Your task to perform on an android device: turn on translation in the chrome app Image 0: 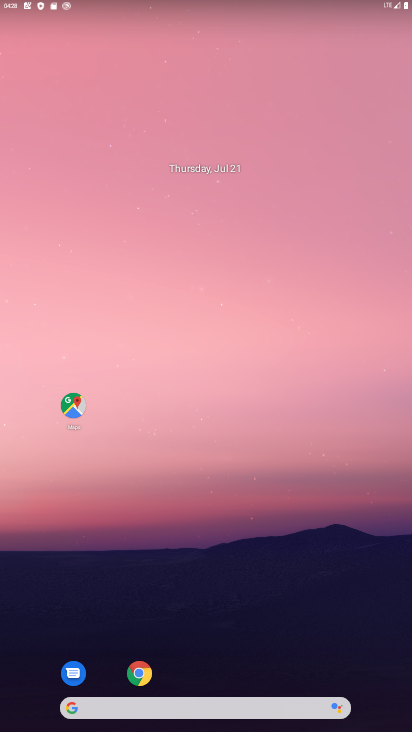
Step 0: drag from (393, 596) to (155, 50)
Your task to perform on an android device: turn on translation in the chrome app Image 1: 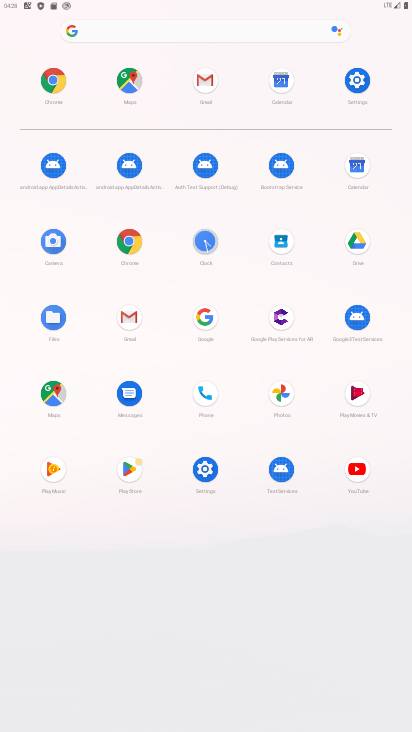
Step 1: click (124, 240)
Your task to perform on an android device: turn on translation in the chrome app Image 2: 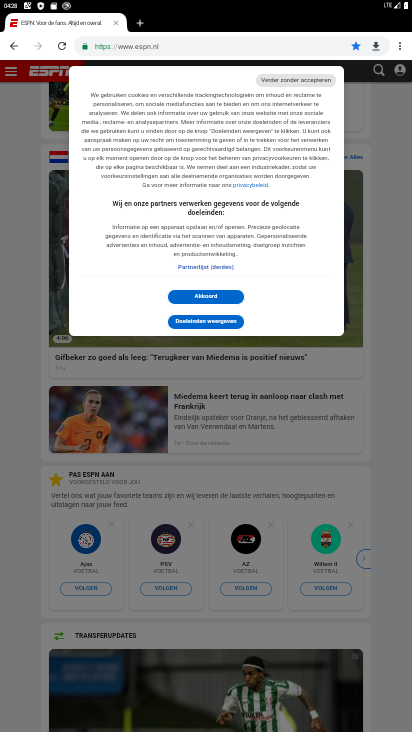
Step 2: drag from (402, 42) to (293, 304)
Your task to perform on an android device: turn on translation in the chrome app Image 3: 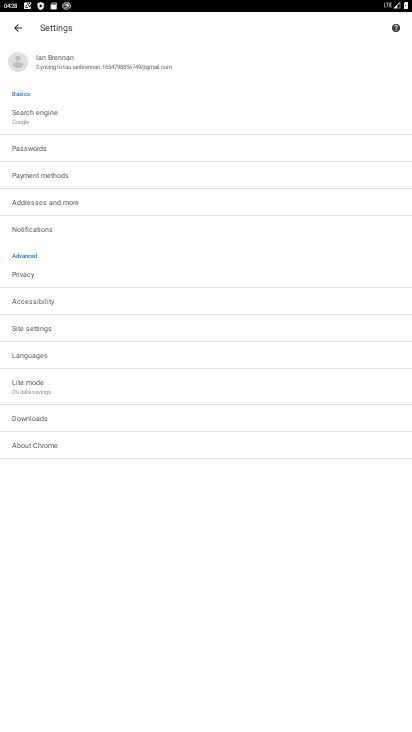
Step 3: click (30, 361)
Your task to perform on an android device: turn on translation in the chrome app Image 4: 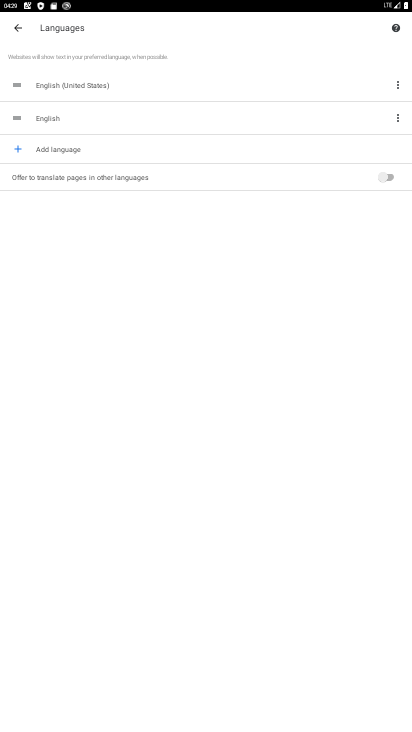
Step 4: click (376, 187)
Your task to perform on an android device: turn on translation in the chrome app Image 5: 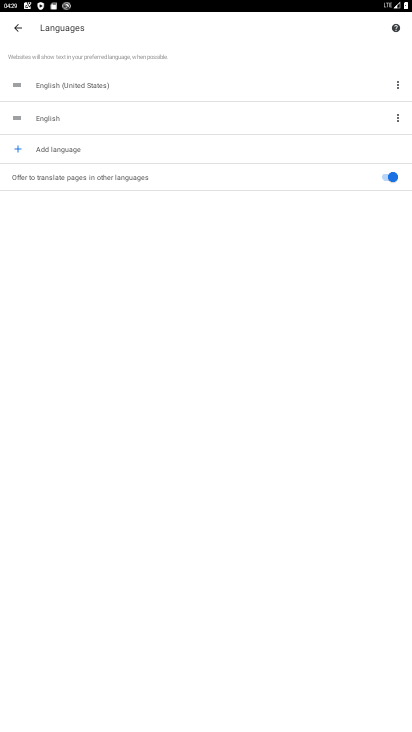
Step 5: task complete